Your task to perform on an android device: toggle pop-ups in chrome Image 0: 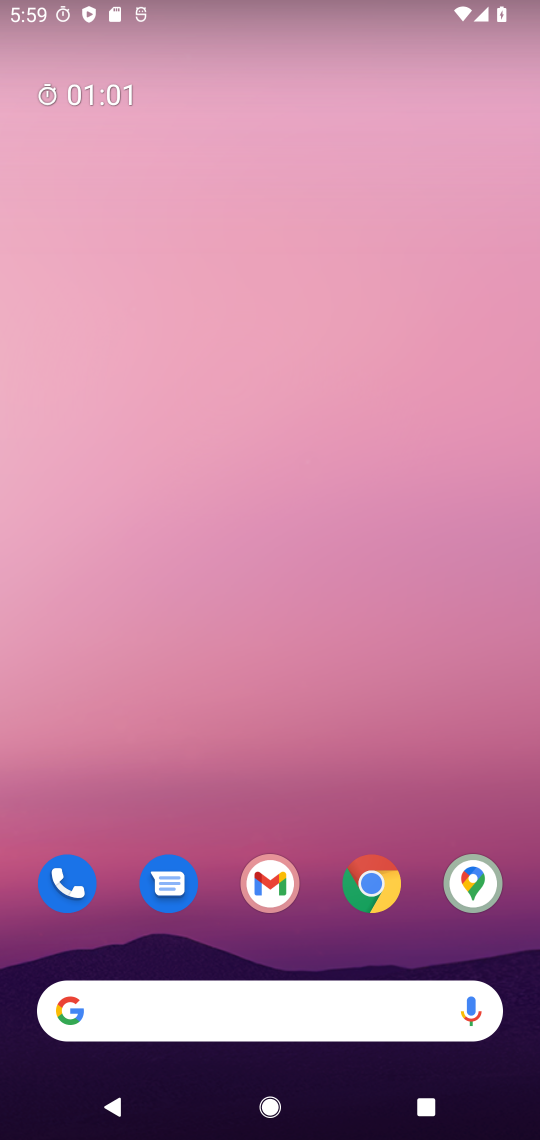
Step 0: click (390, 886)
Your task to perform on an android device: toggle pop-ups in chrome Image 1: 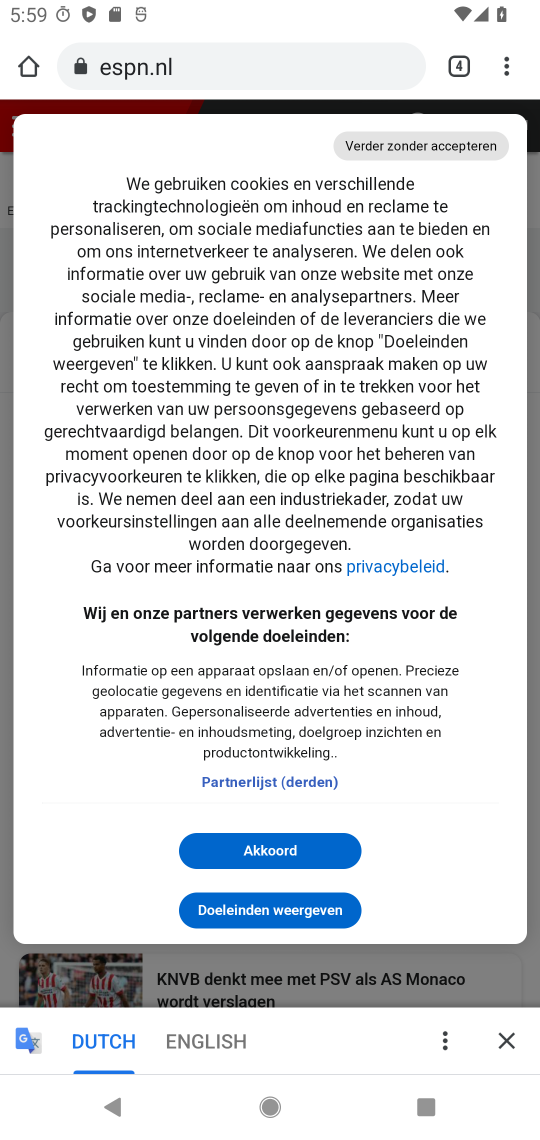
Step 1: click (509, 74)
Your task to perform on an android device: toggle pop-ups in chrome Image 2: 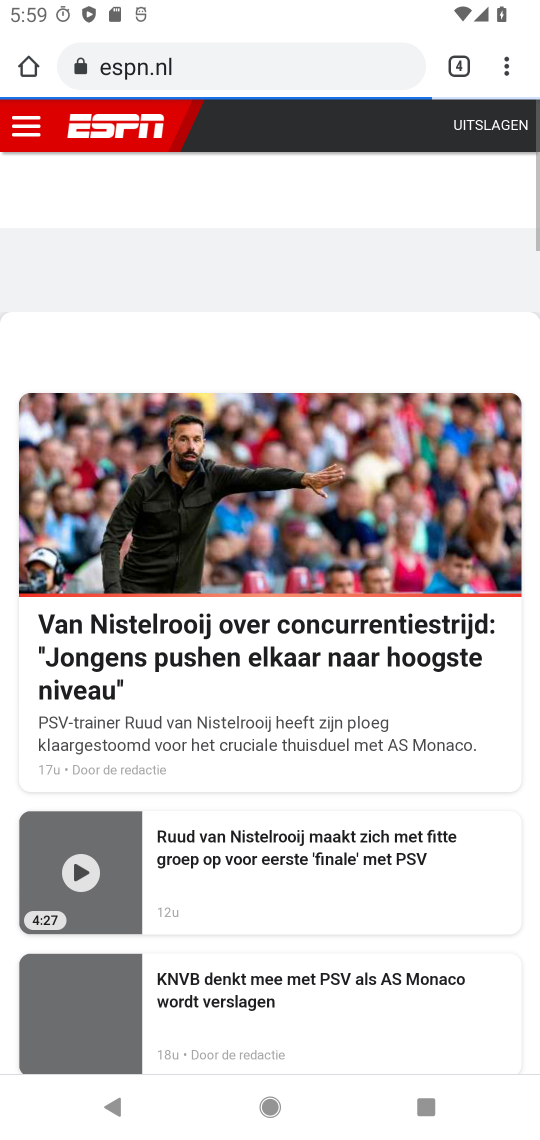
Step 2: drag from (499, 61) to (316, 881)
Your task to perform on an android device: toggle pop-ups in chrome Image 3: 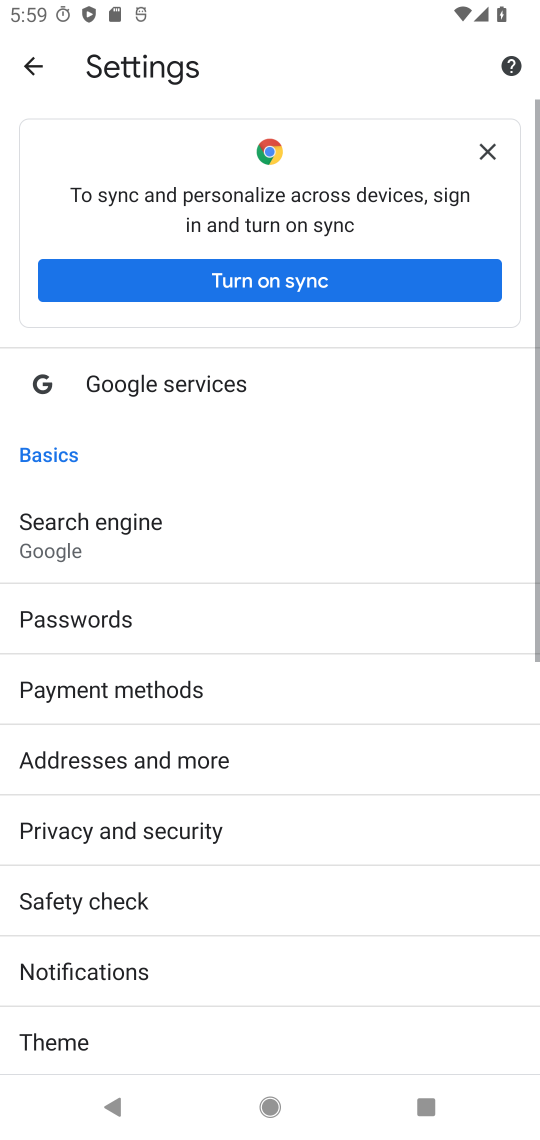
Step 3: drag from (242, 934) to (200, 328)
Your task to perform on an android device: toggle pop-ups in chrome Image 4: 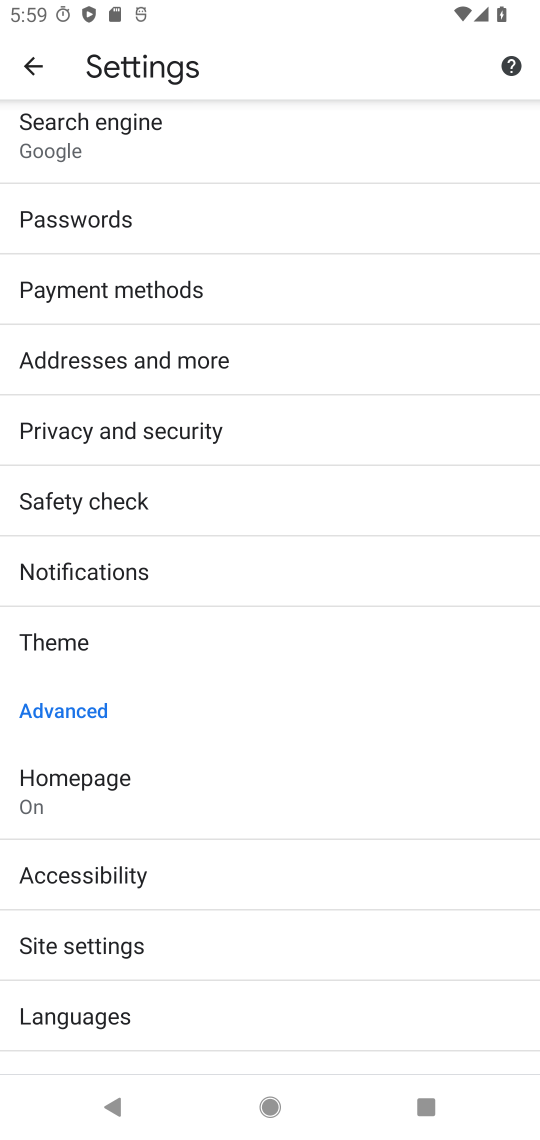
Step 4: click (172, 940)
Your task to perform on an android device: toggle pop-ups in chrome Image 5: 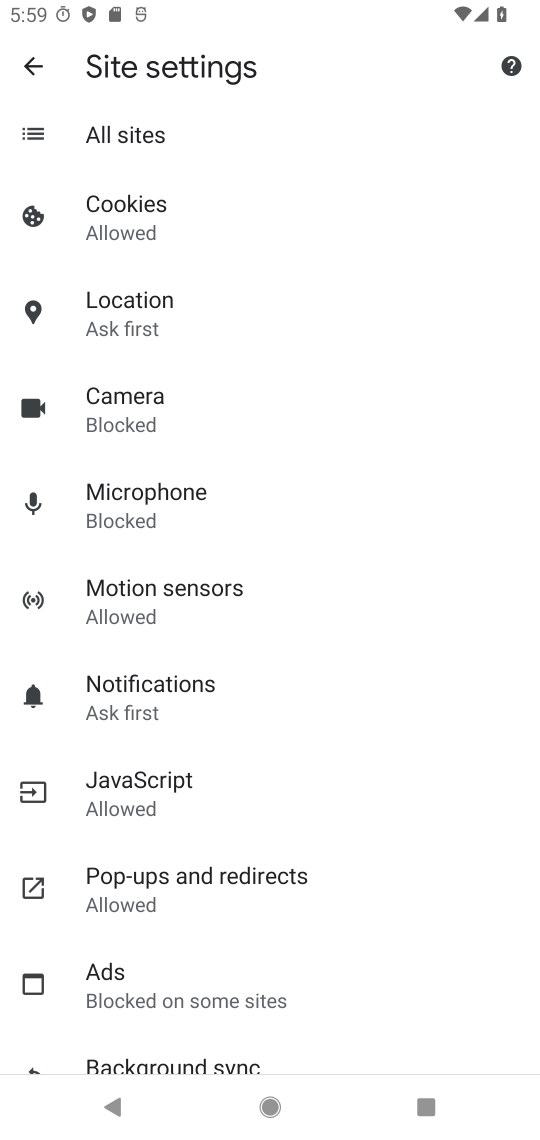
Step 5: click (234, 881)
Your task to perform on an android device: toggle pop-ups in chrome Image 6: 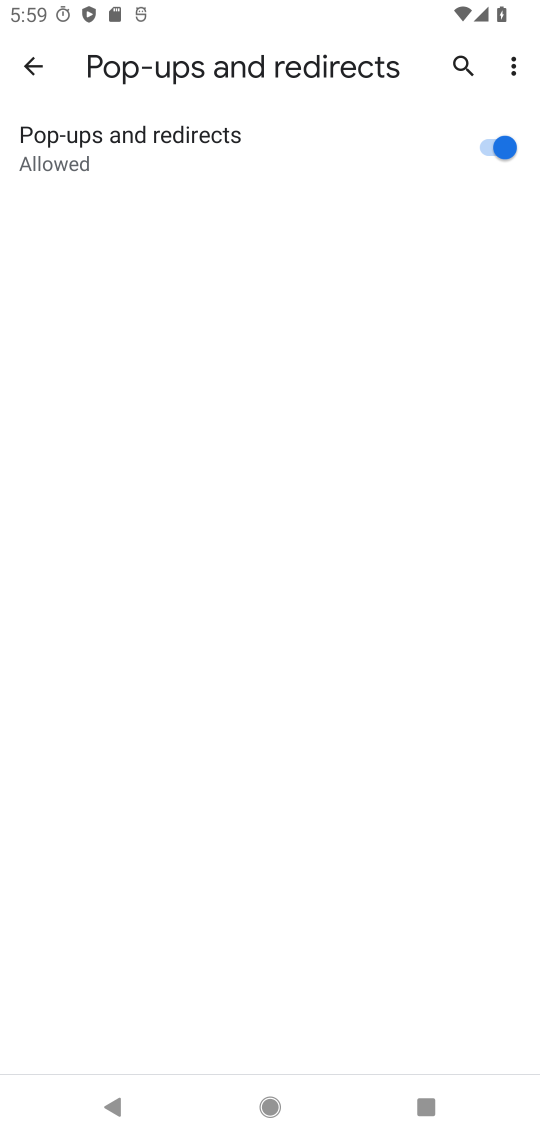
Step 6: click (475, 161)
Your task to perform on an android device: toggle pop-ups in chrome Image 7: 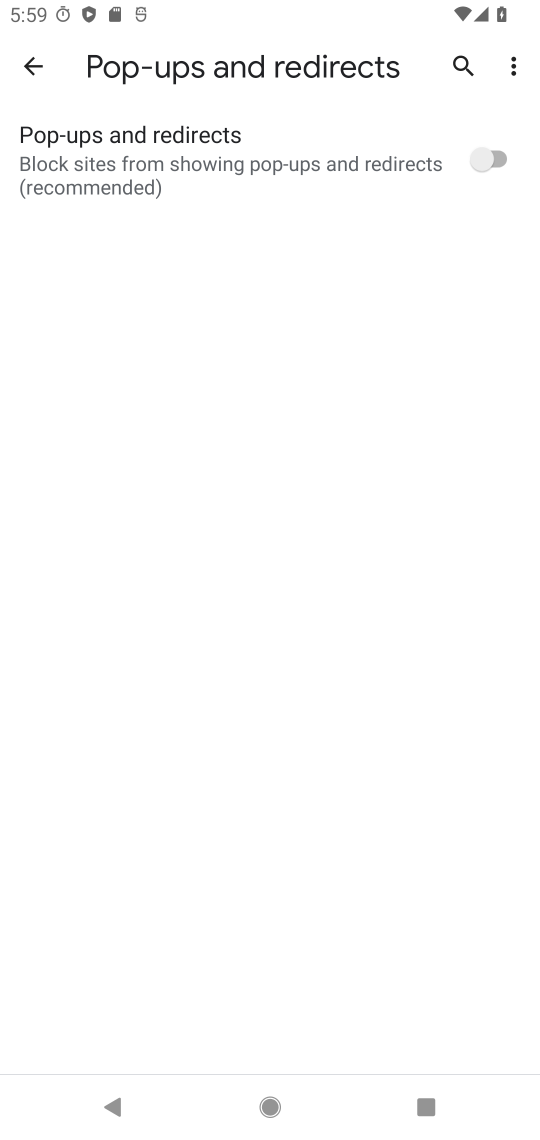
Step 7: task complete